Your task to perform on an android device: When is my next meeting? Image 0: 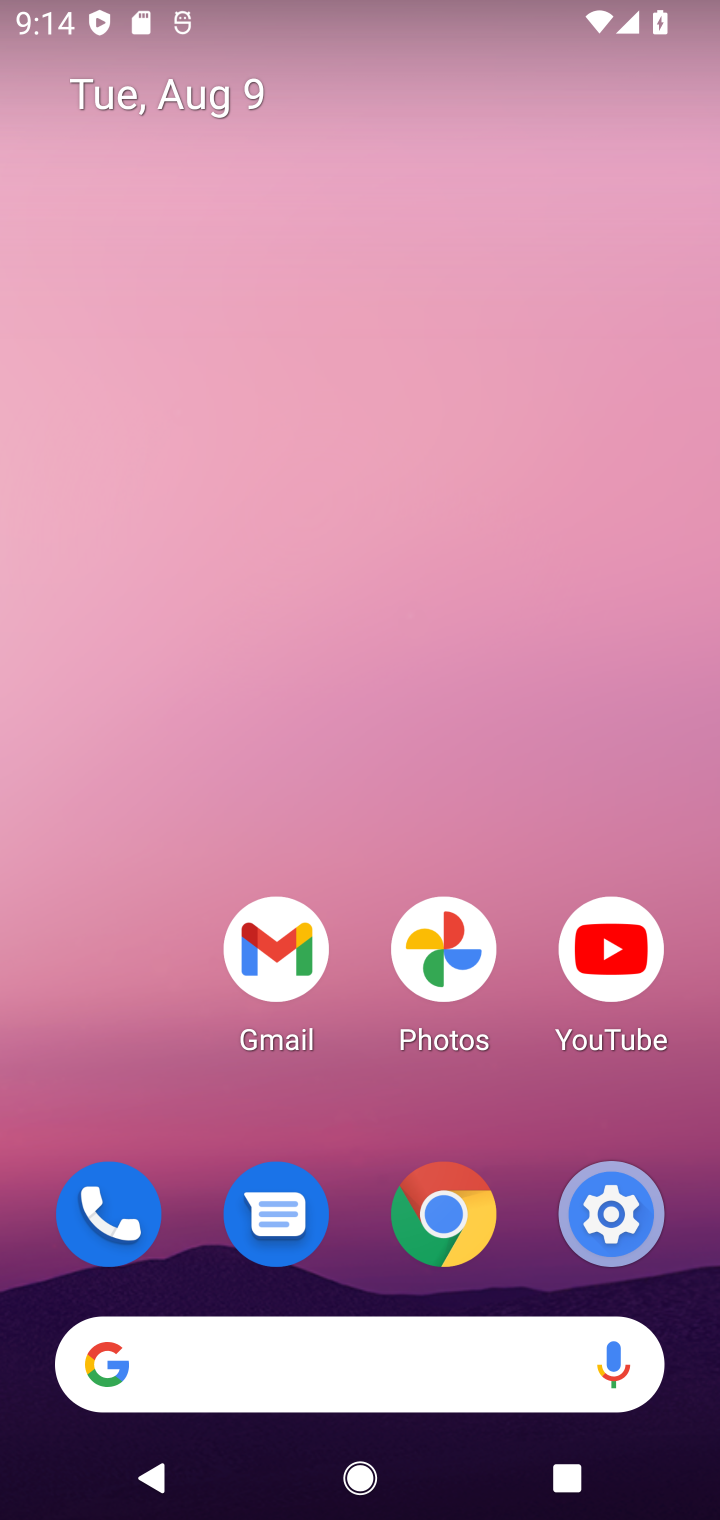
Step 0: drag from (124, 1313) to (218, 465)
Your task to perform on an android device: When is my next meeting? Image 1: 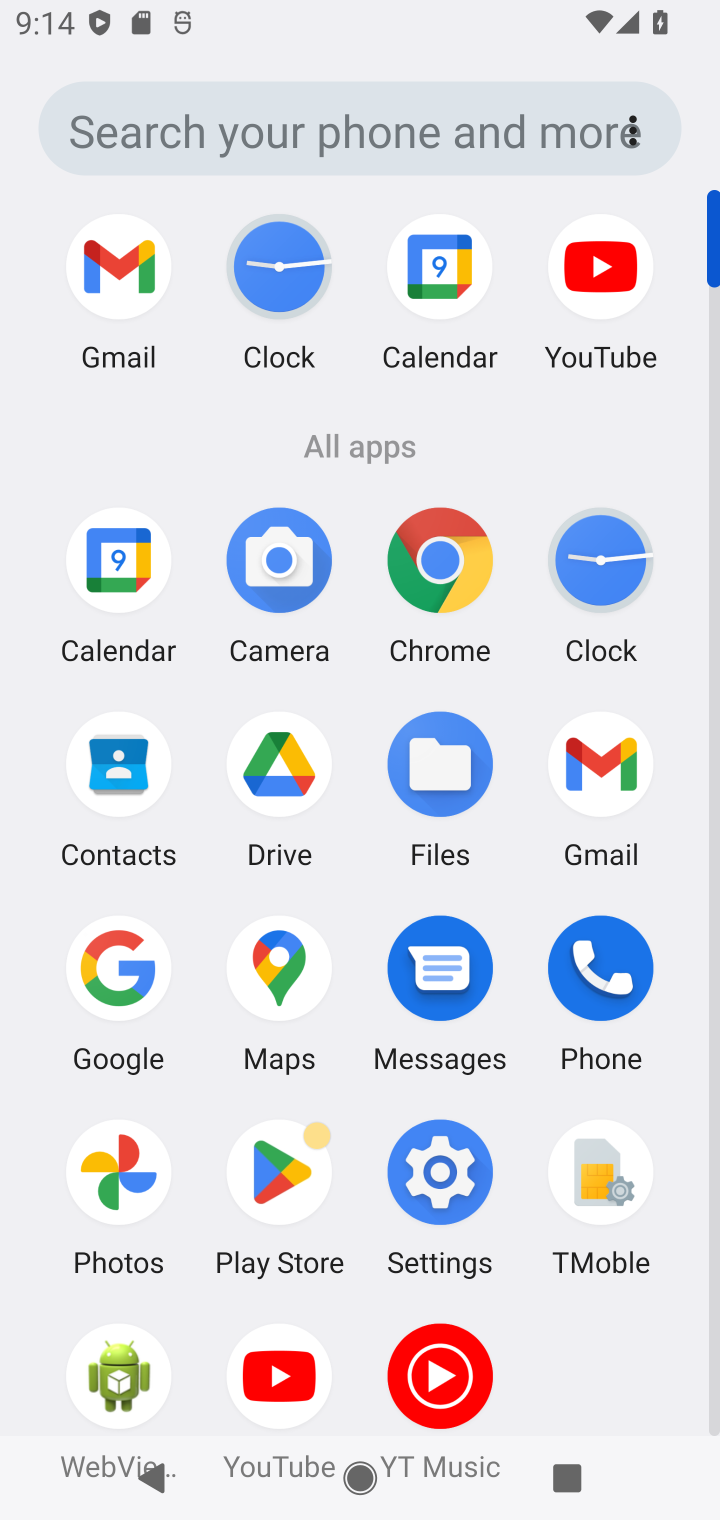
Step 1: click (146, 586)
Your task to perform on an android device: When is my next meeting? Image 2: 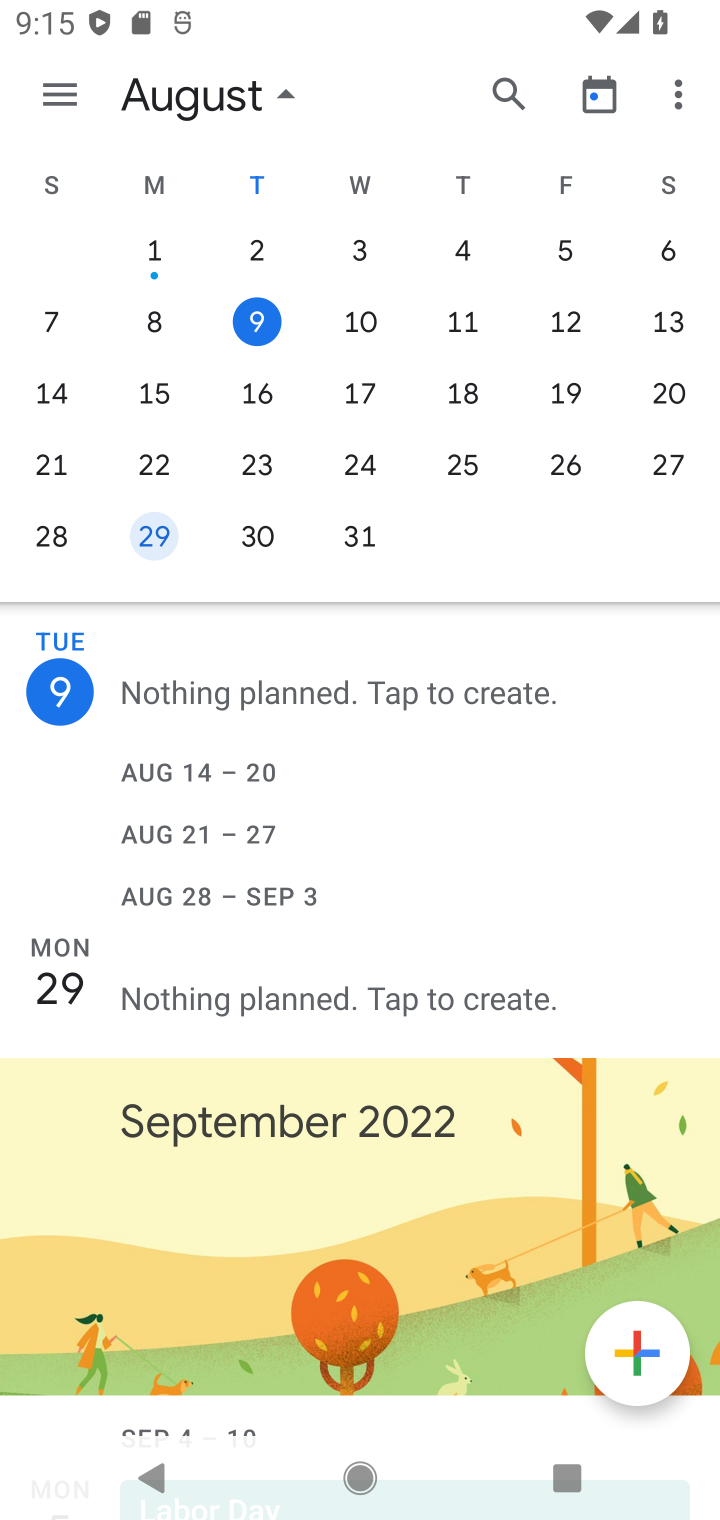
Step 2: task complete